Your task to perform on an android device: choose inbox layout in the gmail app Image 0: 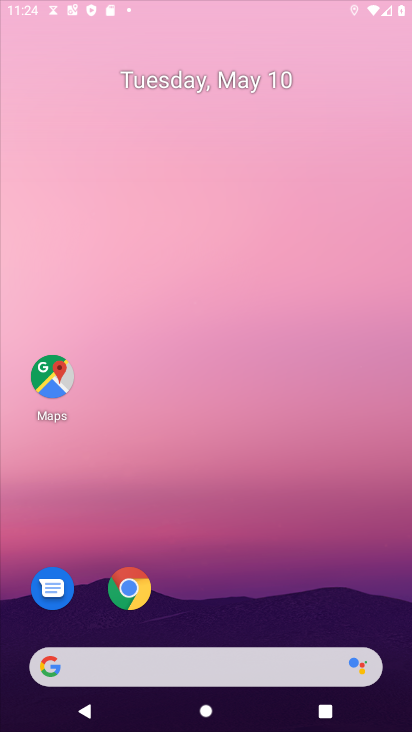
Step 0: drag from (350, 619) to (308, 168)
Your task to perform on an android device: choose inbox layout in the gmail app Image 1: 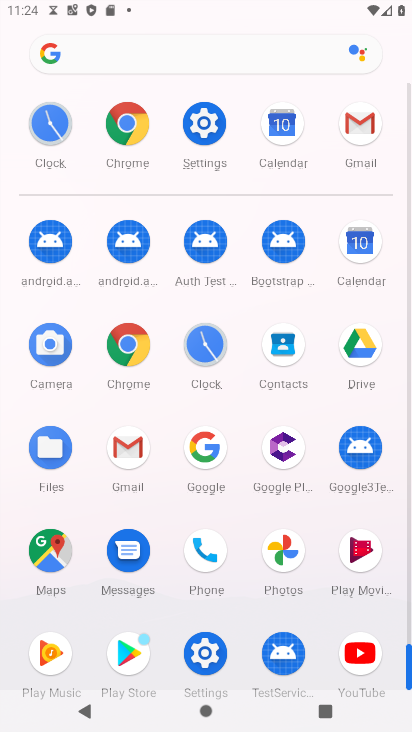
Step 1: click (132, 458)
Your task to perform on an android device: choose inbox layout in the gmail app Image 2: 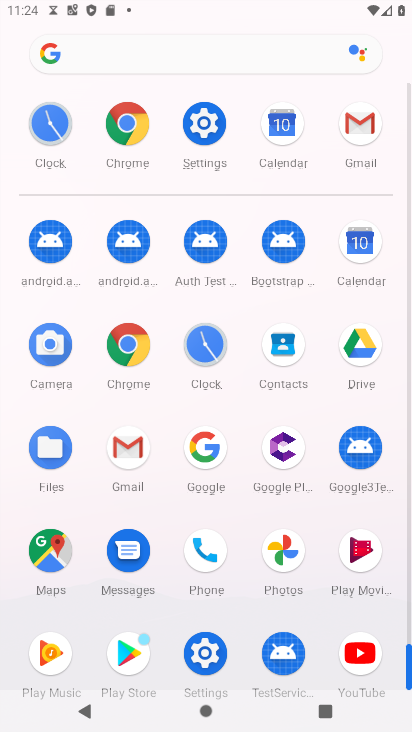
Step 2: click (132, 458)
Your task to perform on an android device: choose inbox layout in the gmail app Image 3: 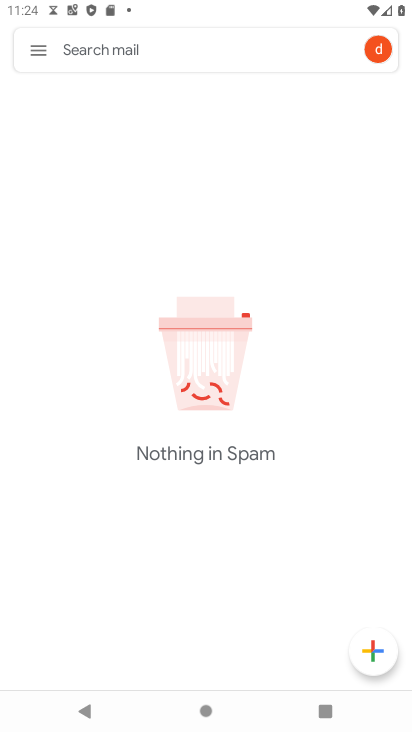
Step 3: click (37, 49)
Your task to perform on an android device: choose inbox layout in the gmail app Image 4: 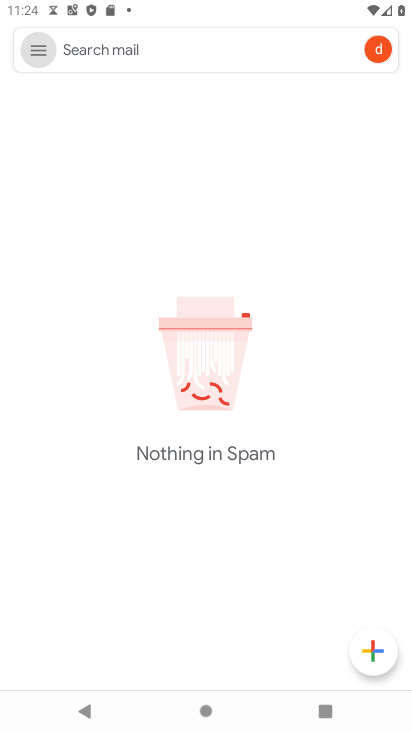
Step 4: click (37, 49)
Your task to perform on an android device: choose inbox layout in the gmail app Image 5: 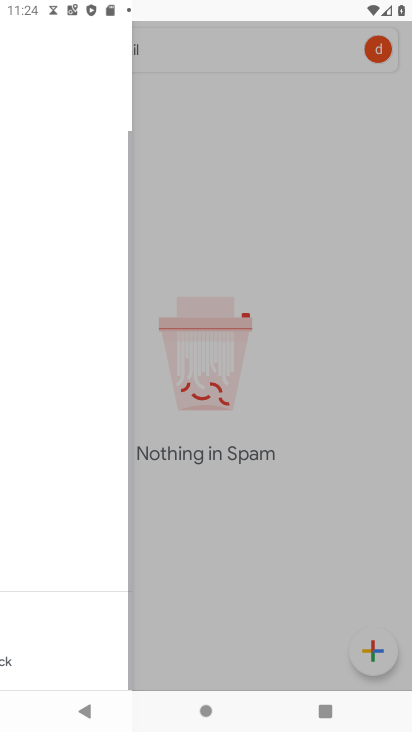
Step 5: click (37, 49)
Your task to perform on an android device: choose inbox layout in the gmail app Image 6: 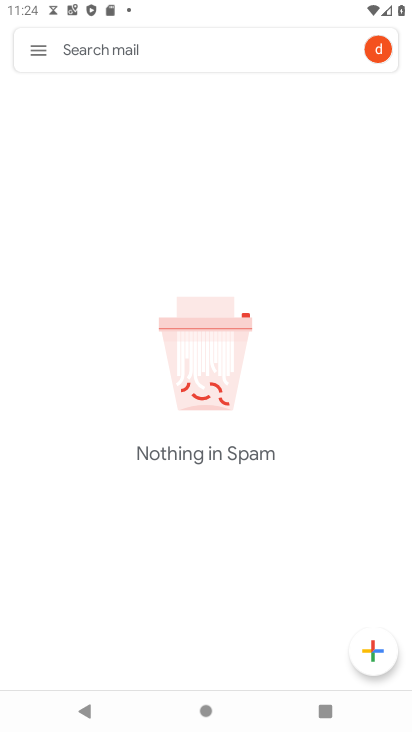
Step 6: click (38, 53)
Your task to perform on an android device: choose inbox layout in the gmail app Image 7: 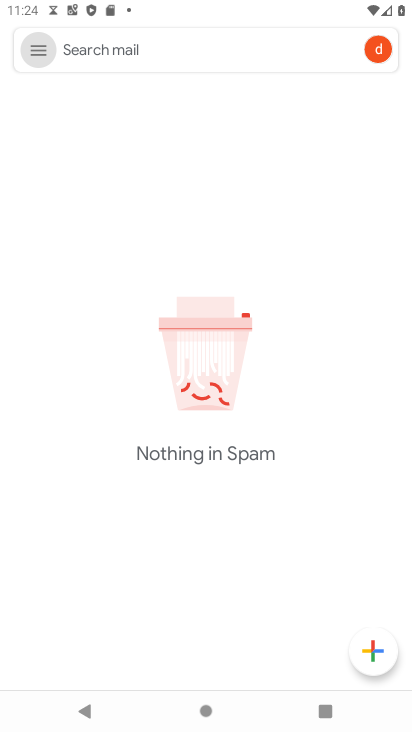
Step 7: click (38, 53)
Your task to perform on an android device: choose inbox layout in the gmail app Image 8: 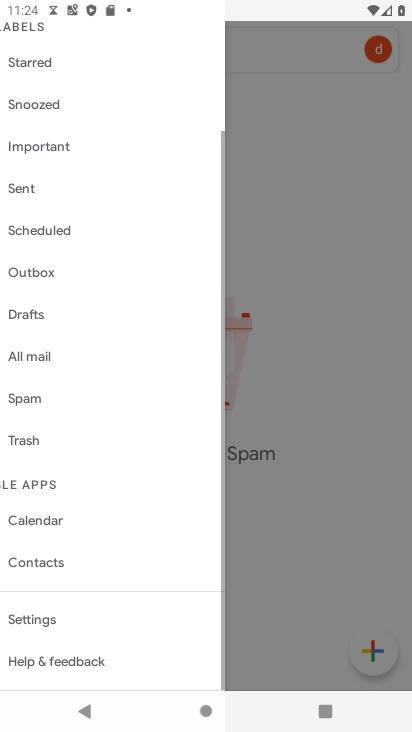
Step 8: click (38, 53)
Your task to perform on an android device: choose inbox layout in the gmail app Image 9: 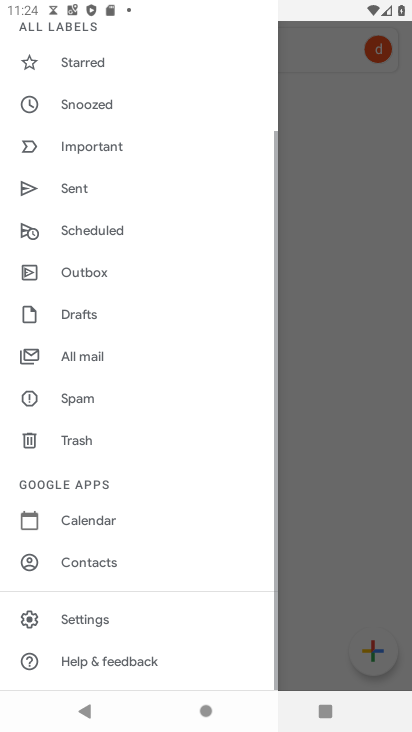
Step 9: drag from (38, 53) to (82, 396)
Your task to perform on an android device: choose inbox layout in the gmail app Image 10: 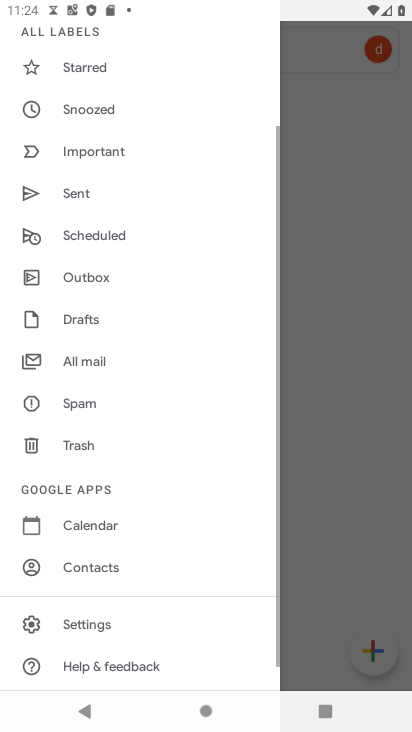
Step 10: drag from (82, 396) to (89, 361)
Your task to perform on an android device: choose inbox layout in the gmail app Image 11: 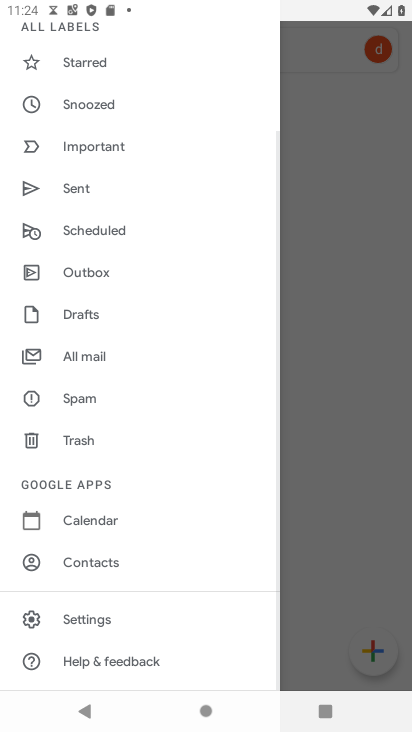
Step 11: click (89, 361)
Your task to perform on an android device: choose inbox layout in the gmail app Image 12: 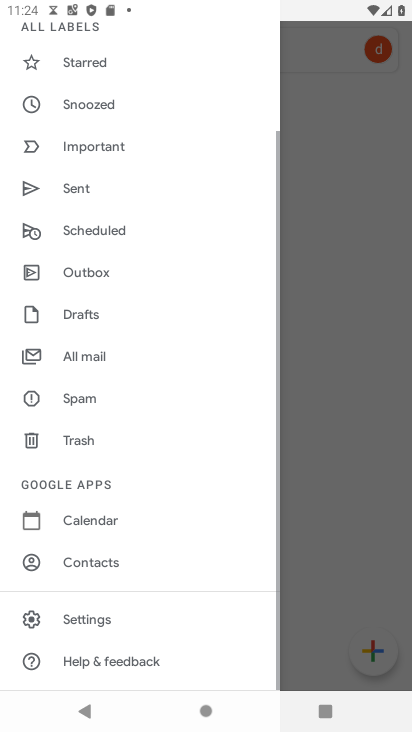
Step 12: click (89, 361)
Your task to perform on an android device: choose inbox layout in the gmail app Image 13: 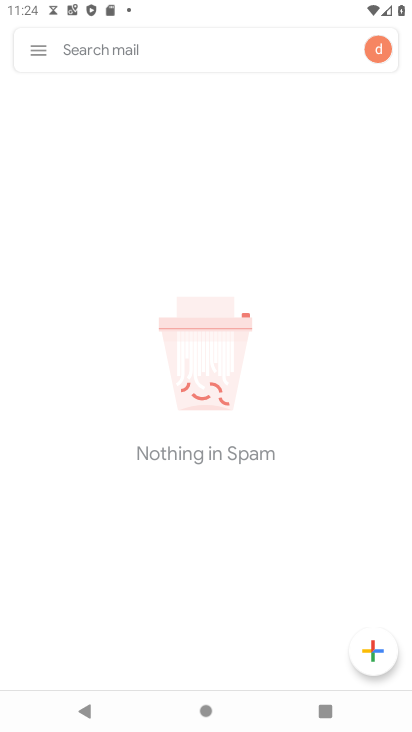
Step 13: click (89, 354)
Your task to perform on an android device: choose inbox layout in the gmail app Image 14: 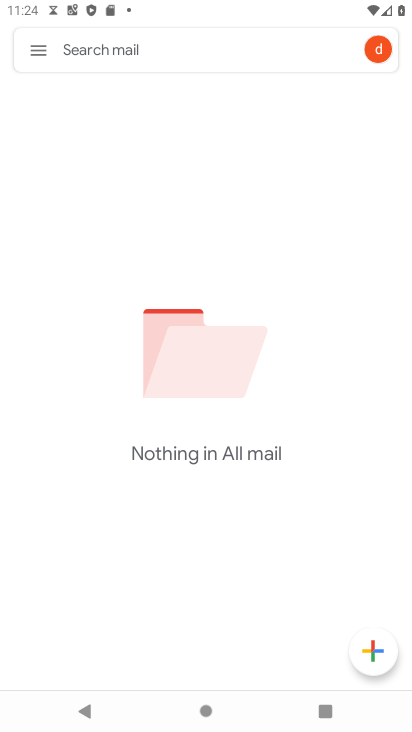
Step 14: task complete